Your task to perform on an android device: Open Google Chrome and click the shortcut for Amazon.com Image 0: 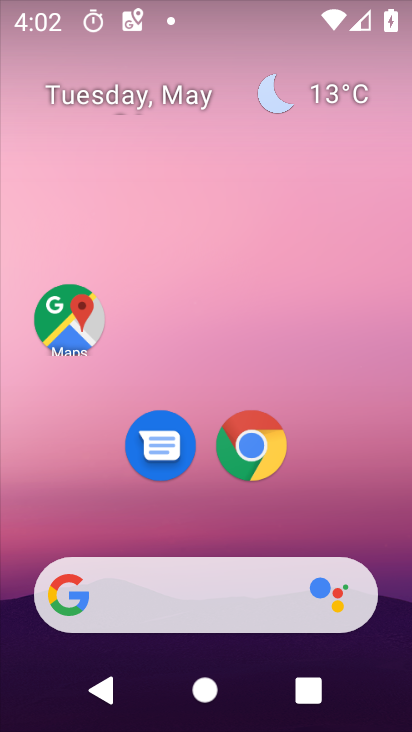
Step 0: press home button
Your task to perform on an android device: Open Google Chrome and click the shortcut for Amazon.com Image 1: 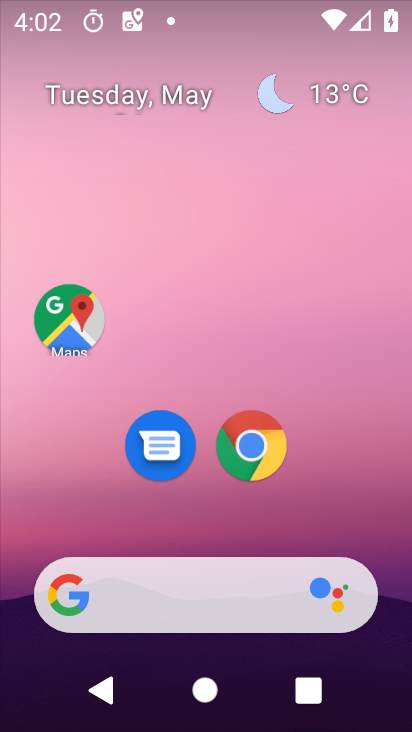
Step 1: click (246, 436)
Your task to perform on an android device: Open Google Chrome and click the shortcut for Amazon.com Image 2: 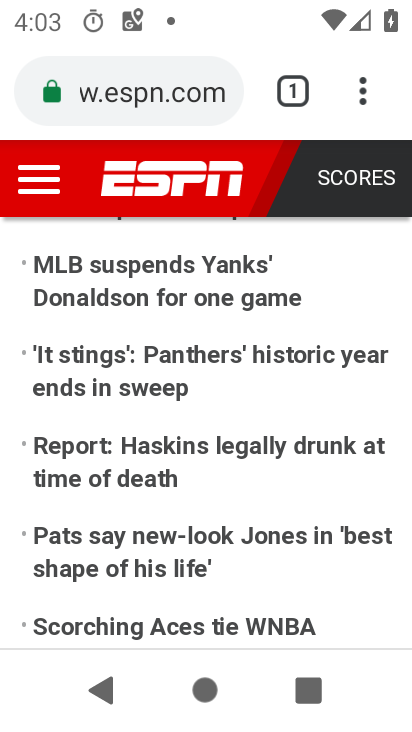
Step 2: click (358, 92)
Your task to perform on an android device: Open Google Chrome and click the shortcut for Amazon.com Image 3: 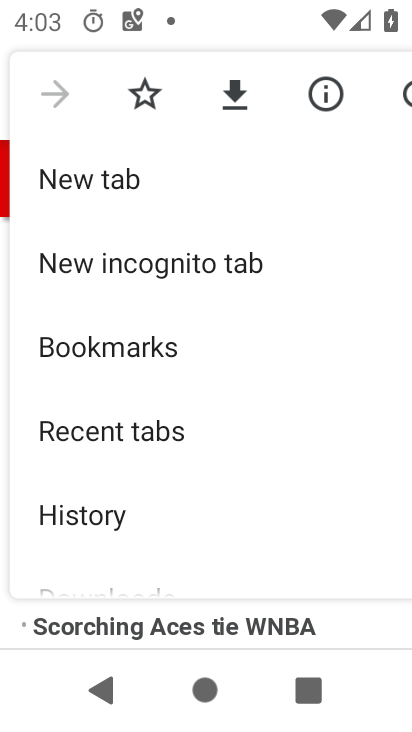
Step 3: click (56, 93)
Your task to perform on an android device: Open Google Chrome and click the shortcut for Amazon.com Image 4: 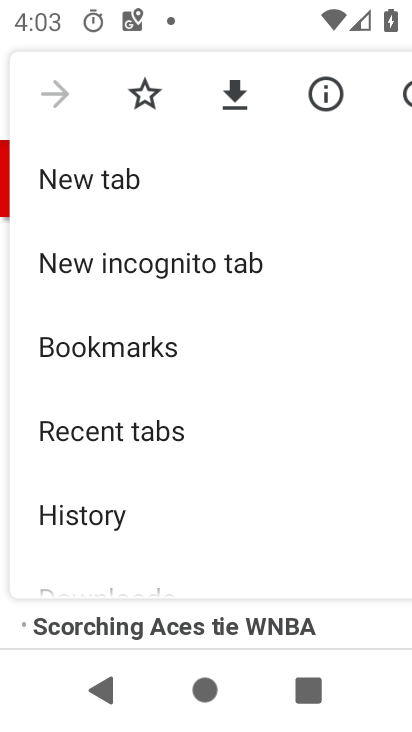
Step 4: click (98, 173)
Your task to perform on an android device: Open Google Chrome and click the shortcut for Amazon.com Image 5: 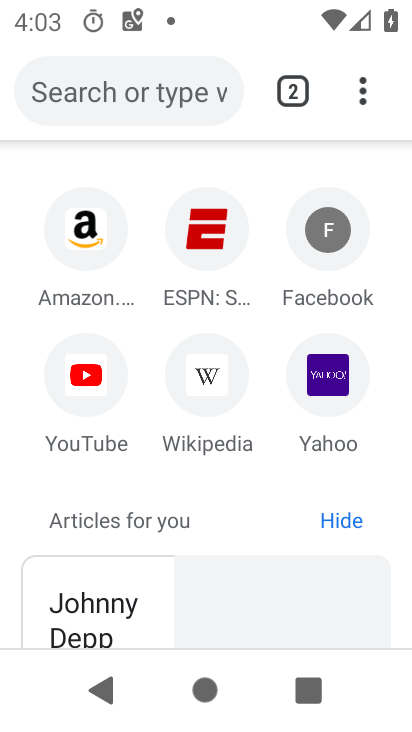
Step 5: click (95, 232)
Your task to perform on an android device: Open Google Chrome and click the shortcut for Amazon.com Image 6: 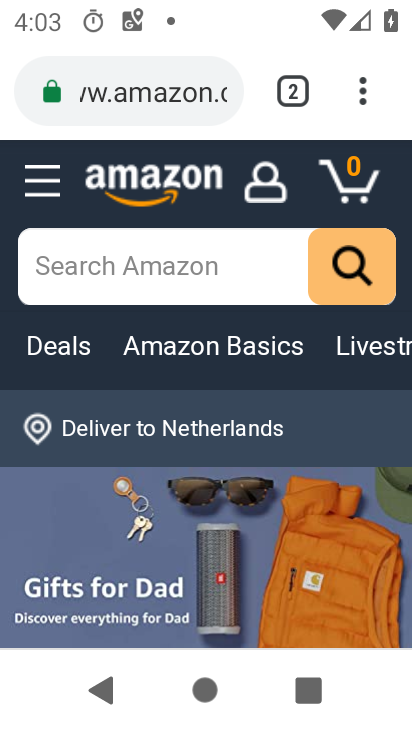
Step 6: task complete